Your task to perform on an android device: change notifications settings Image 0: 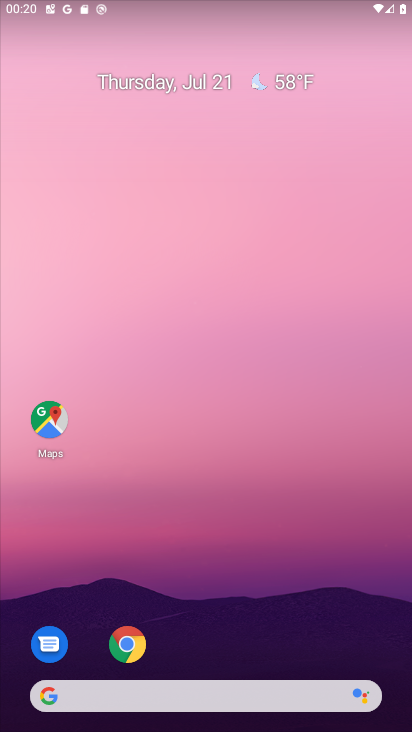
Step 0: drag from (317, 485) to (373, 158)
Your task to perform on an android device: change notifications settings Image 1: 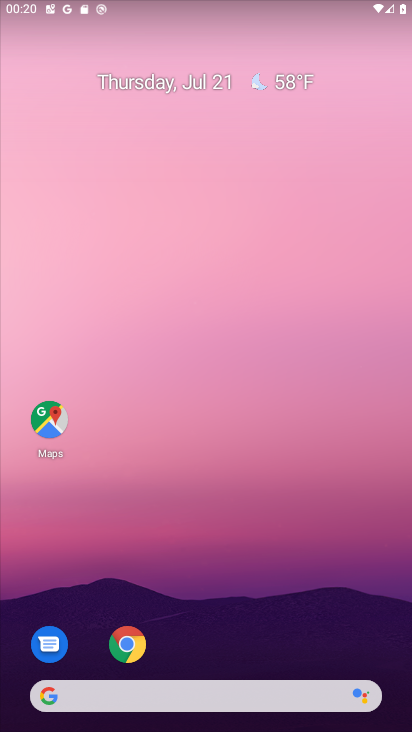
Step 1: drag from (225, 718) to (234, 55)
Your task to perform on an android device: change notifications settings Image 2: 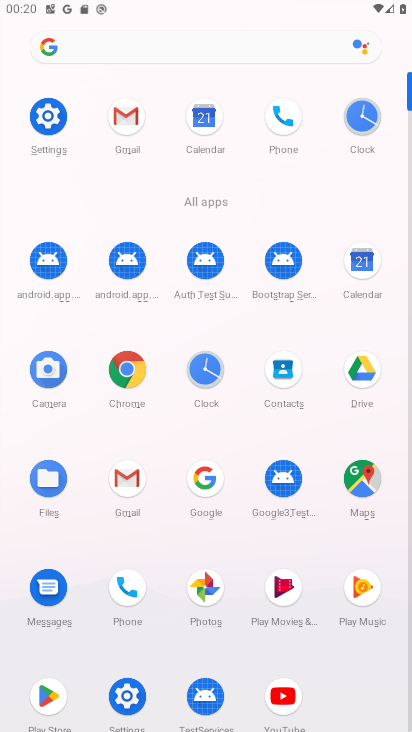
Step 2: click (49, 121)
Your task to perform on an android device: change notifications settings Image 3: 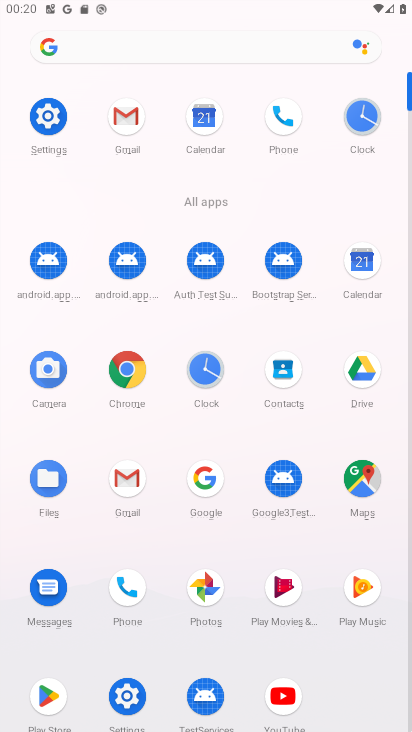
Step 3: click (49, 121)
Your task to perform on an android device: change notifications settings Image 4: 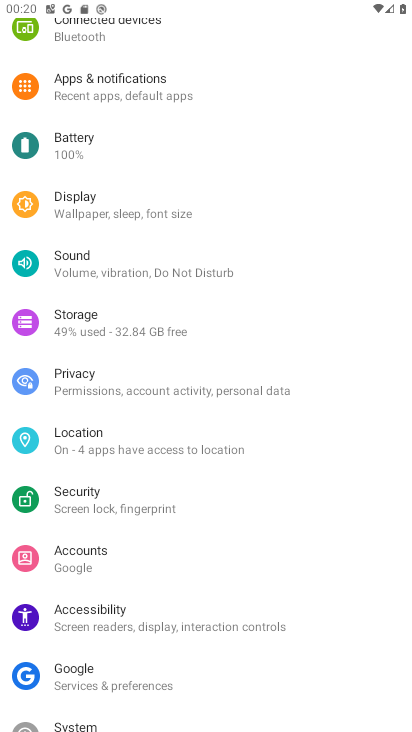
Step 4: click (225, 100)
Your task to perform on an android device: change notifications settings Image 5: 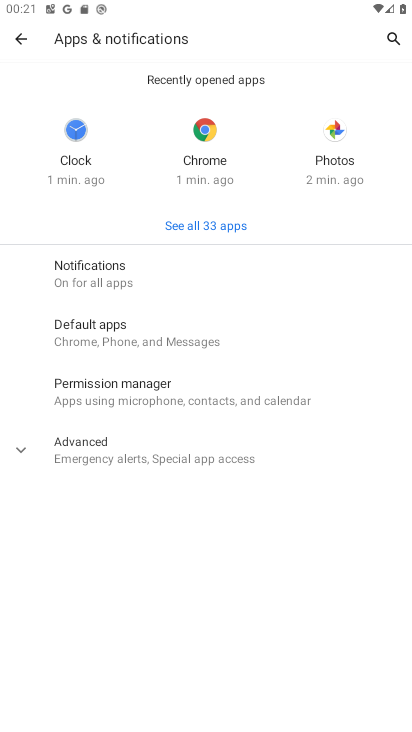
Step 5: click (200, 280)
Your task to perform on an android device: change notifications settings Image 6: 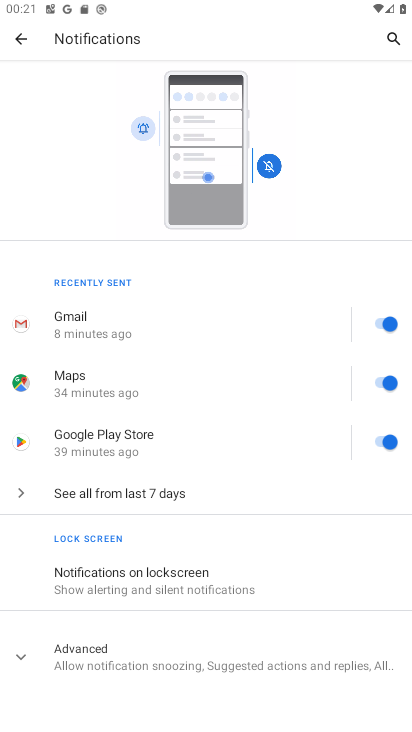
Step 6: click (384, 324)
Your task to perform on an android device: change notifications settings Image 7: 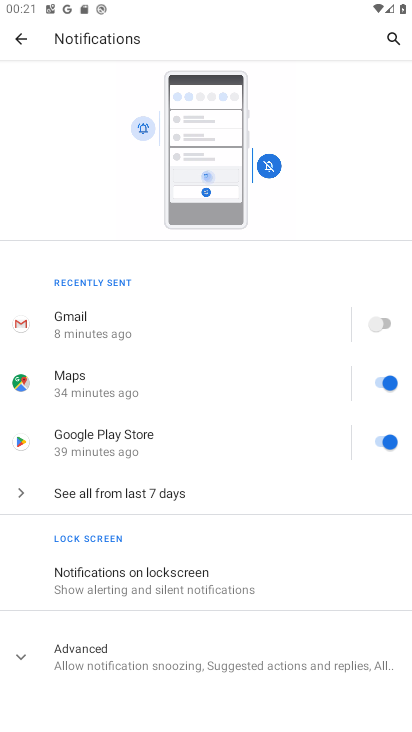
Step 7: task complete